Your task to perform on an android device: empty trash in the gmail app Image 0: 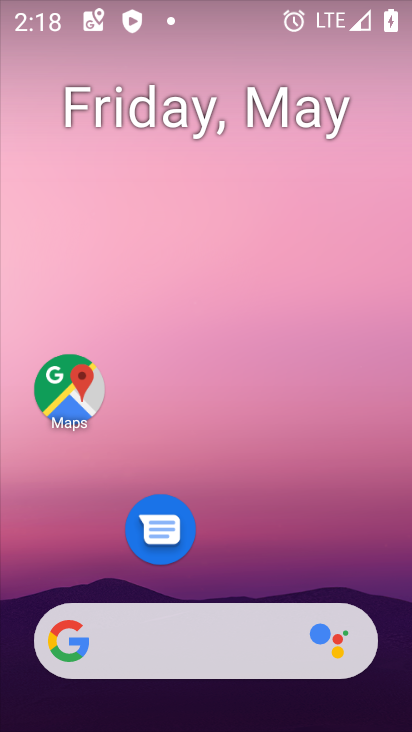
Step 0: drag from (187, 573) to (225, 314)
Your task to perform on an android device: empty trash in the gmail app Image 1: 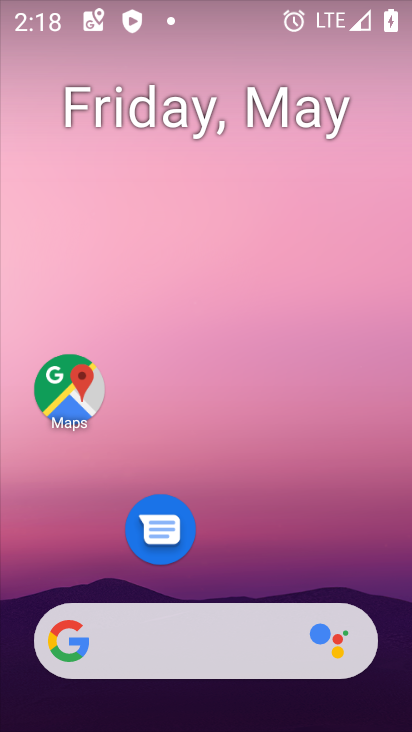
Step 1: drag from (196, 552) to (211, 378)
Your task to perform on an android device: empty trash in the gmail app Image 2: 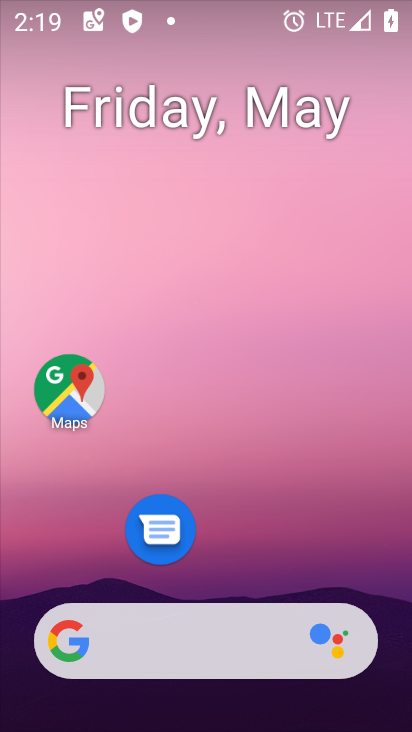
Step 2: drag from (208, 569) to (187, 78)
Your task to perform on an android device: empty trash in the gmail app Image 3: 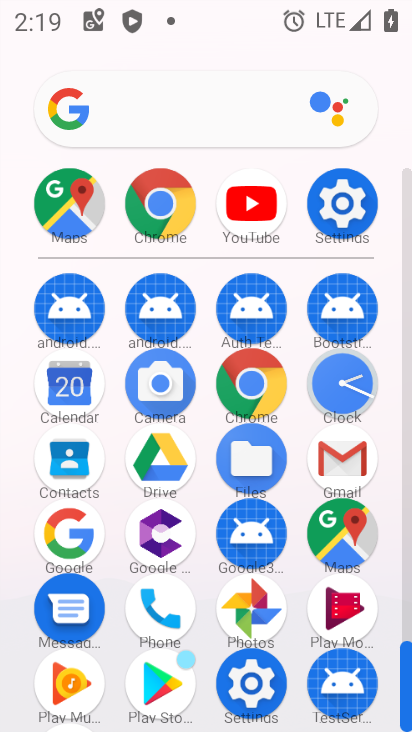
Step 3: drag from (201, 658) to (223, 345)
Your task to perform on an android device: empty trash in the gmail app Image 4: 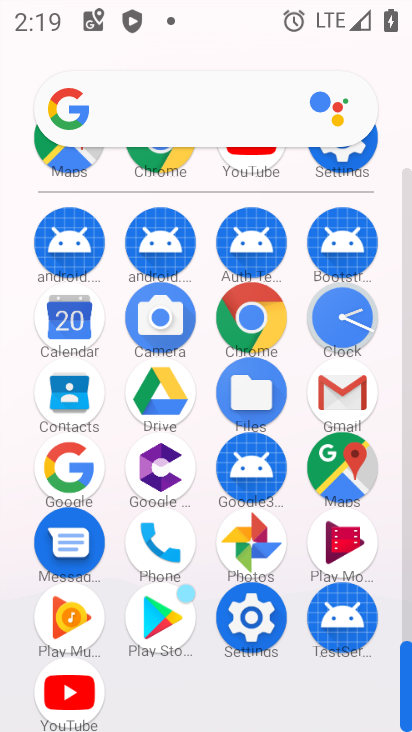
Step 4: click (347, 395)
Your task to perform on an android device: empty trash in the gmail app Image 5: 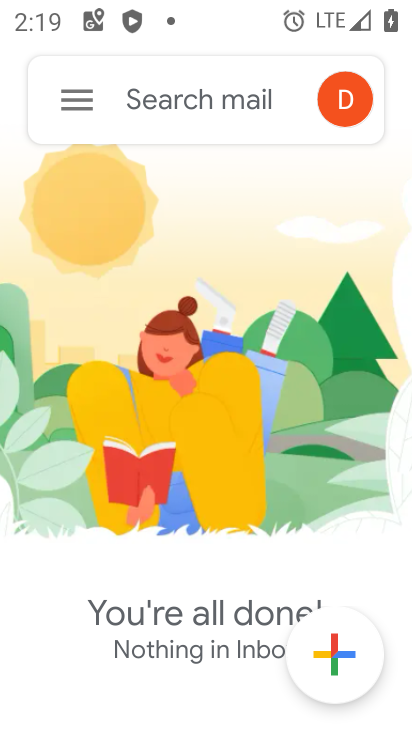
Step 5: drag from (191, 507) to (233, 150)
Your task to perform on an android device: empty trash in the gmail app Image 6: 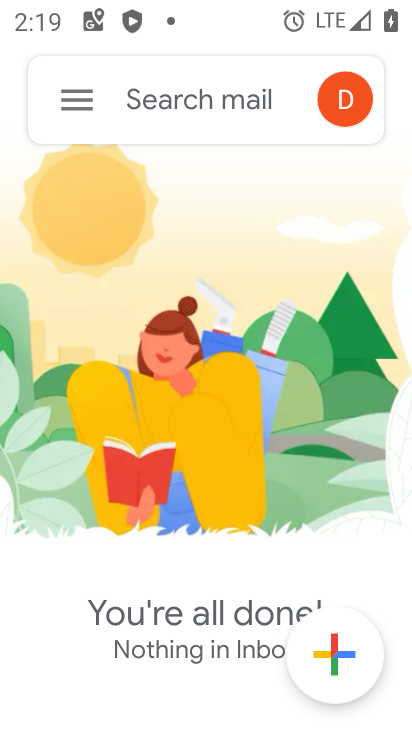
Step 6: click (60, 94)
Your task to perform on an android device: empty trash in the gmail app Image 7: 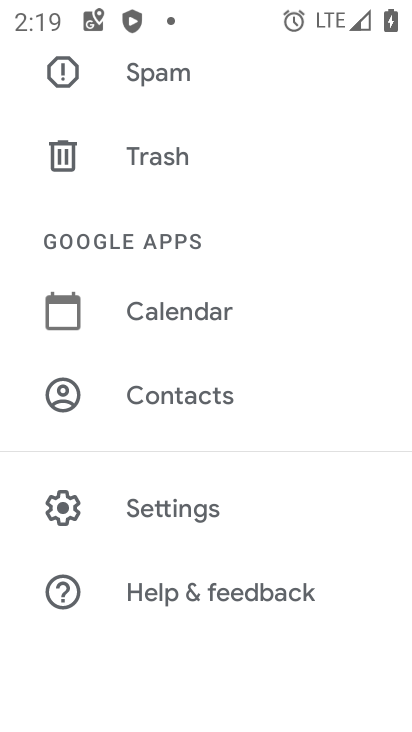
Step 7: click (158, 139)
Your task to perform on an android device: empty trash in the gmail app Image 8: 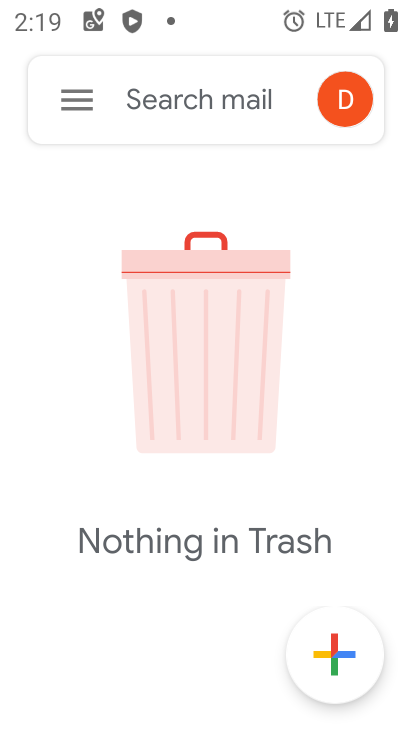
Step 8: task complete